Your task to perform on an android device: Open settings on Google Maps Image 0: 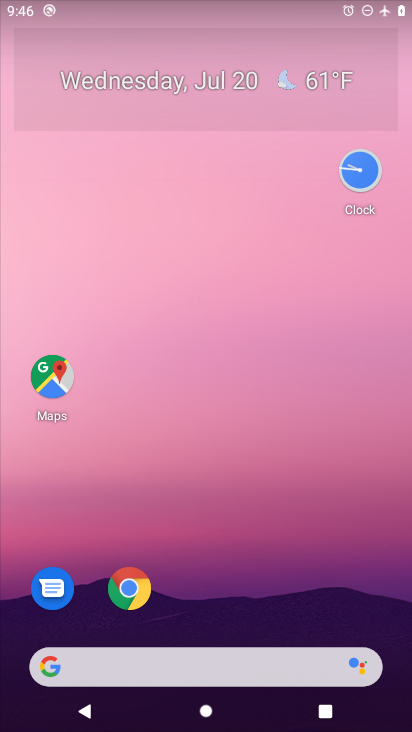
Step 0: click (59, 390)
Your task to perform on an android device: Open settings on Google Maps Image 1: 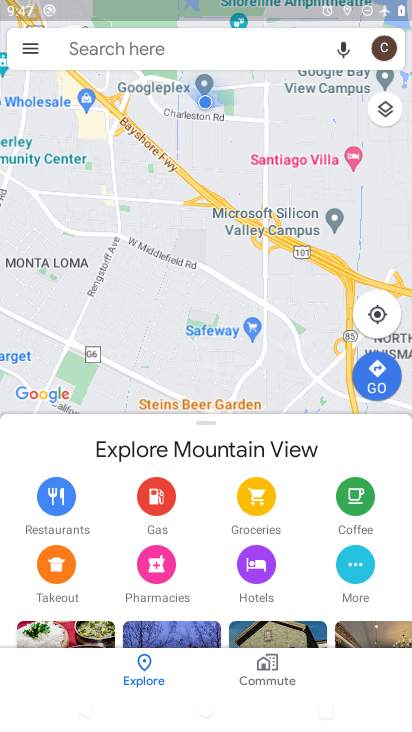
Step 1: click (32, 41)
Your task to perform on an android device: Open settings on Google Maps Image 2: 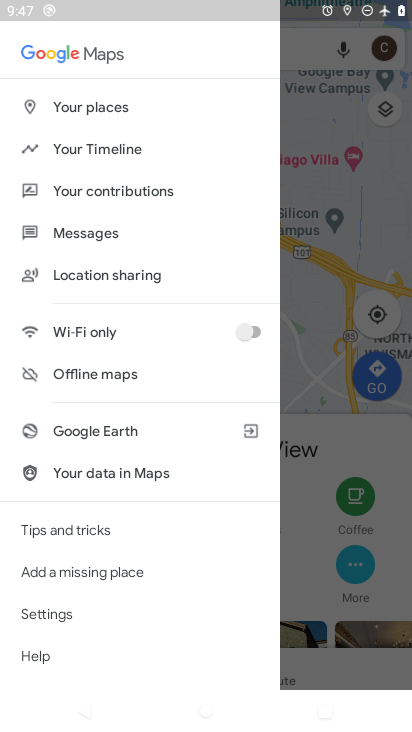
Step 2: click (57, 625)
Your task to perform on an android device: Open settings on Google Maps Image 3: 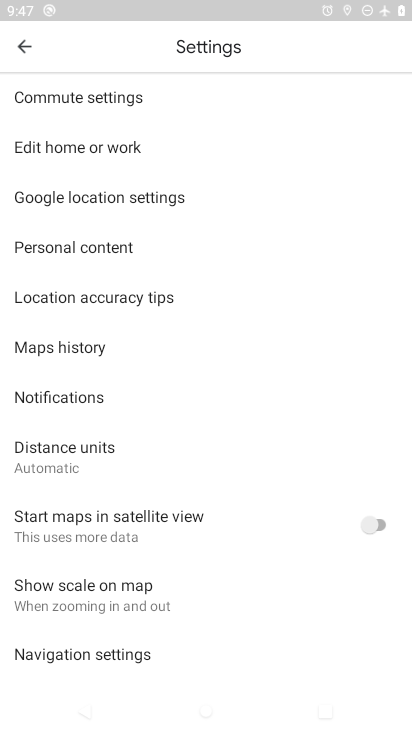
Step 3: task complete